Your task to perform on an android device: turn on showing notifications on the lock screen Image 0: 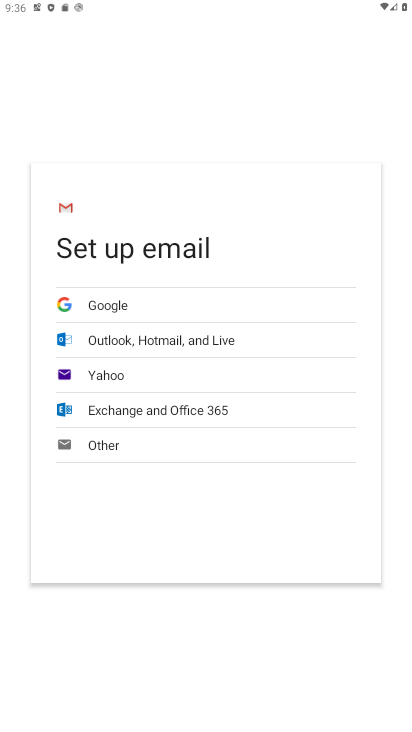
Step 0: press home button
Your task to perform on an android device: turn on showing notifications on the lock screen Image 1: 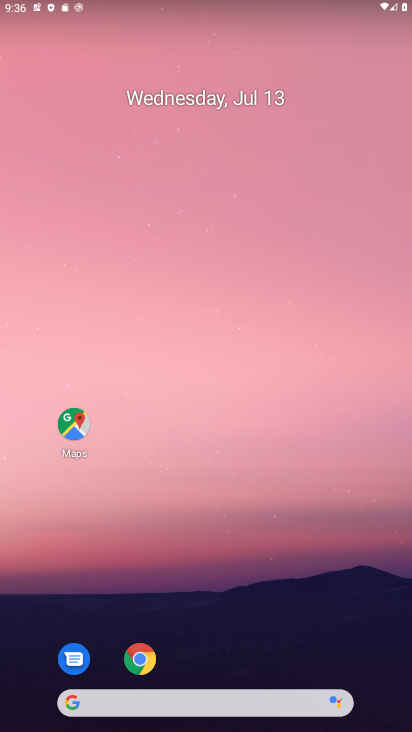
Step 1: drag from (186, 694) to (226, 139)
Your task to perform on an android device: turn on showing notifications on the lock screen Image 2: 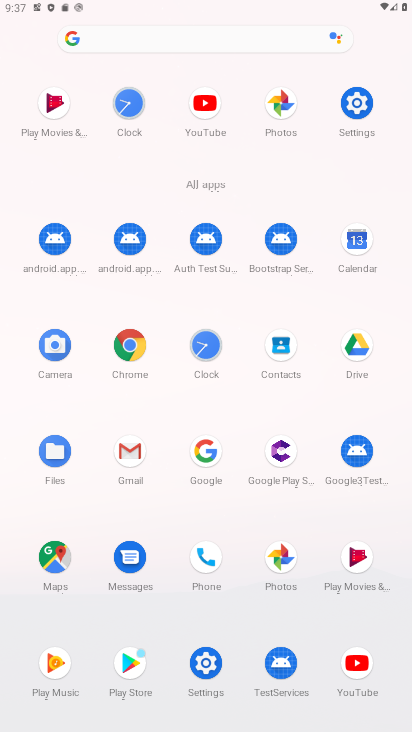
Step 2: click (340, 130)
Your task to perform on an android device: turn on showing notifications on the lock screen Image 3: 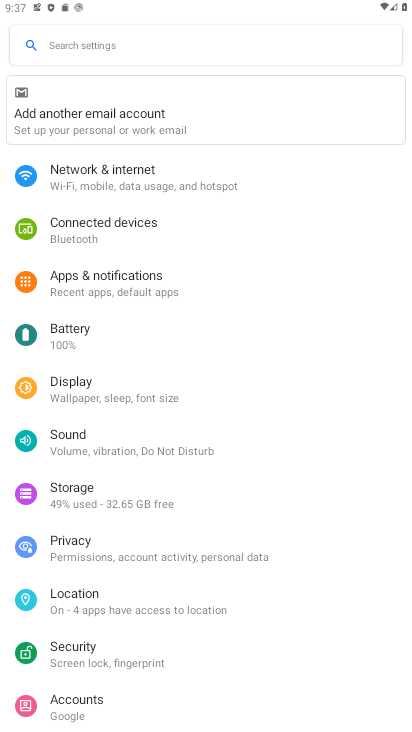
Step 3: click (92, 286)
Your task to perform on an android device: turn on showing notifications on the lock screen Image 4: 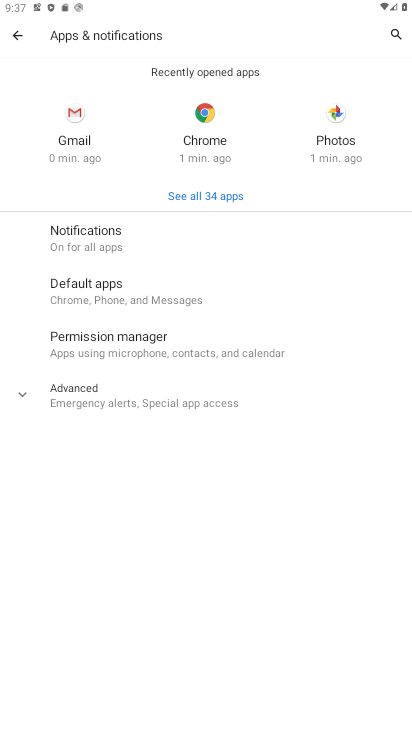
Step 4: click (85, 247)
Your task to perform on an android device: turn on showing notifications on the lock screen Image 5: 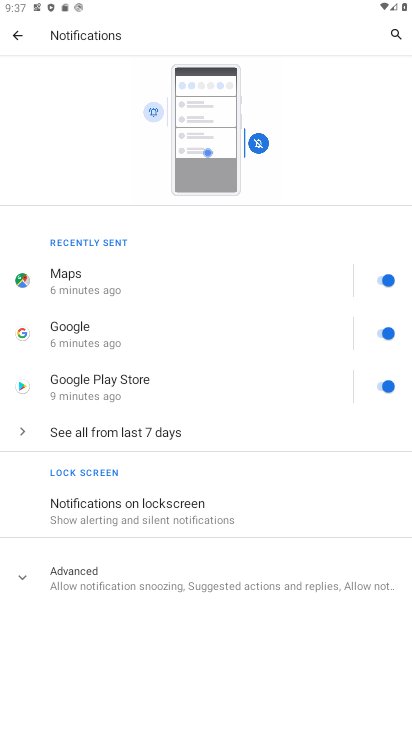
Step 5: click (155, 509)
Your task to perform on an android device: turn on showing notifications on the lock screen Image 6: 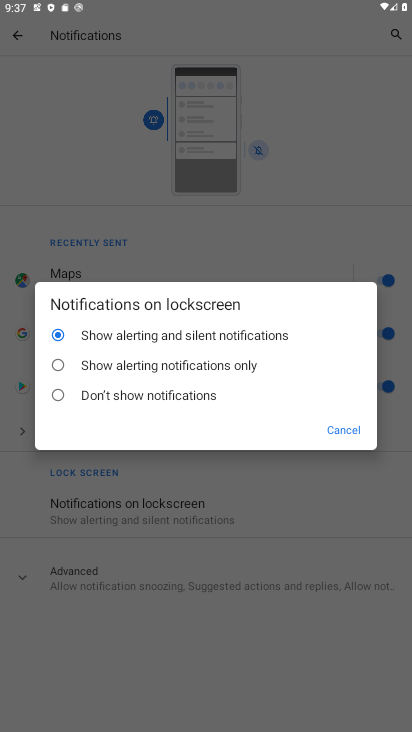
Step 6: click (208, 334)
Your task to perform on an android device: turn on showing notifications on the lock screen Image 7: 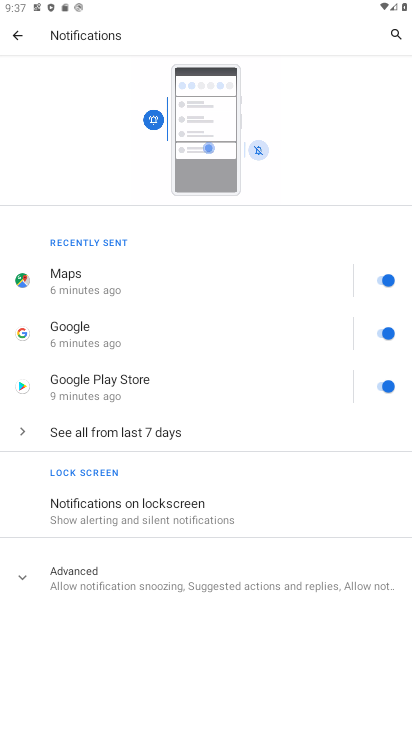
Step 7: task complete